Your task to perform on an android device: turn off location history Image 0: 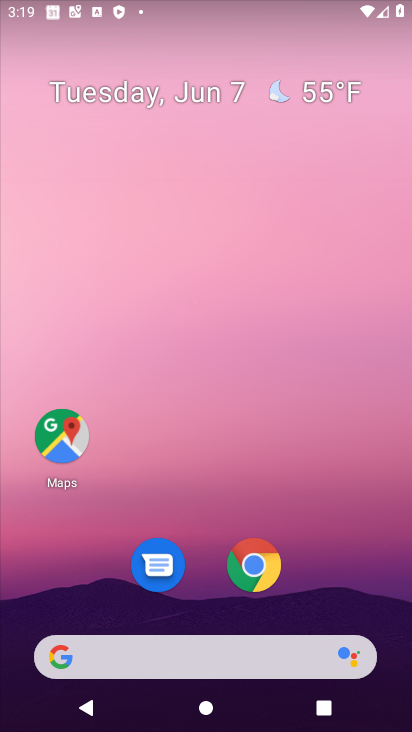
Step 0: drag from (232, 639) to (267, 2)
Your task to perform on an android device: turn off location history Image 1: 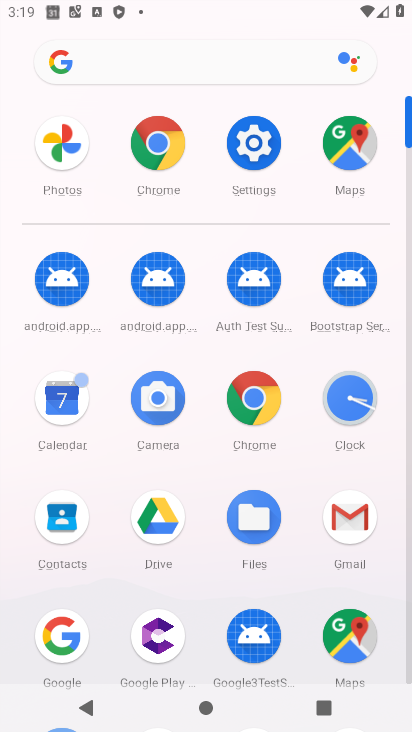
Step 1: click (267, 148)
Your task to perform on an android device: turn off location history Image 2: 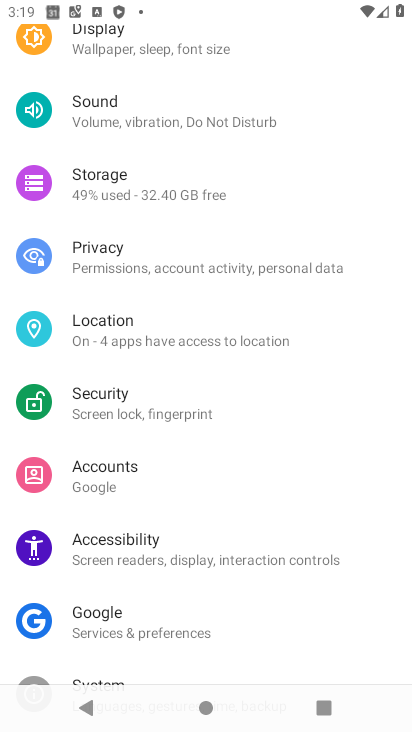
Step 2: click (147, 338)
Your task to perform on an android device: turn off location history Image 3: 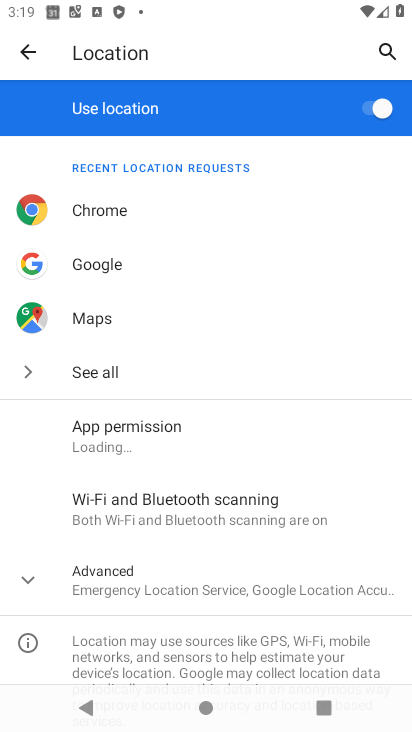
Step 3: click (189, 569)
Your task to perform on an android device: turn off location history Image 4: 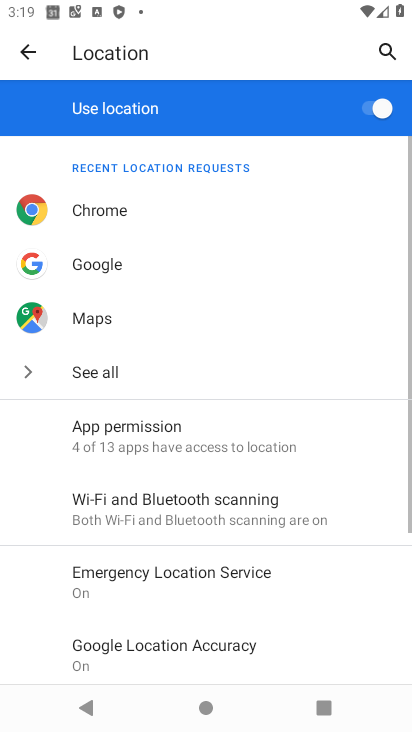
Step 4: drag from (184, 591) to (216, 225)
Your task to perform on an android device: turn off location history Image 5: 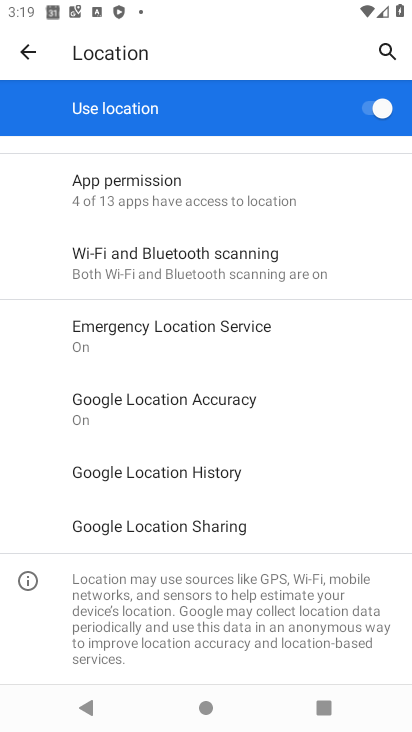
Step 5: click (202, 469)
Your task to perform on an android device: turn off location history Image 6: 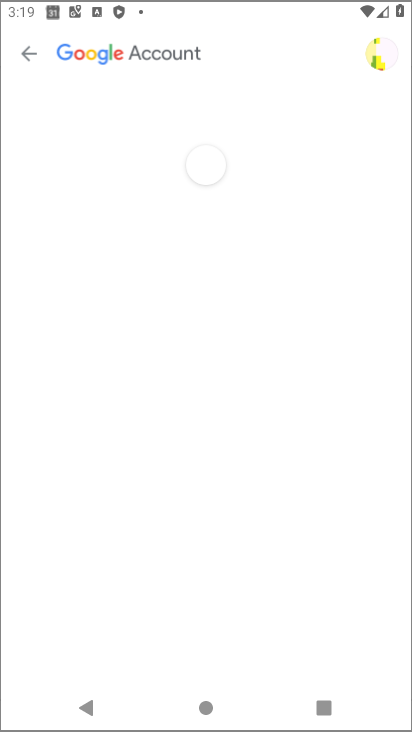
Step 6: drag from (255, 566) to (285, 72)
Your task to perform on an android device: turn off location history Image 7: 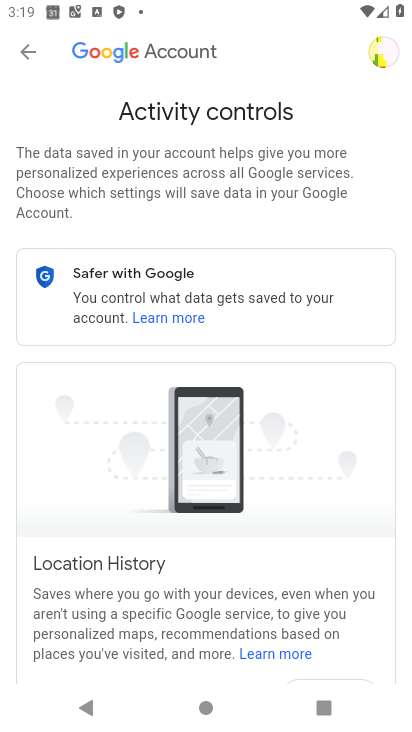
Step 7: drag from (286, 615) to (303, 35)
Your task to perform on an android device: turn off location history Image 8: 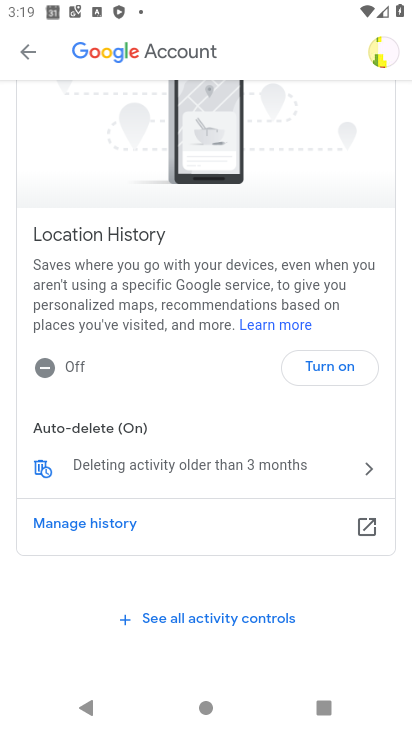
Step 8: click (331, 357)
Your task to perform on an android device: turn off location history Image 9: 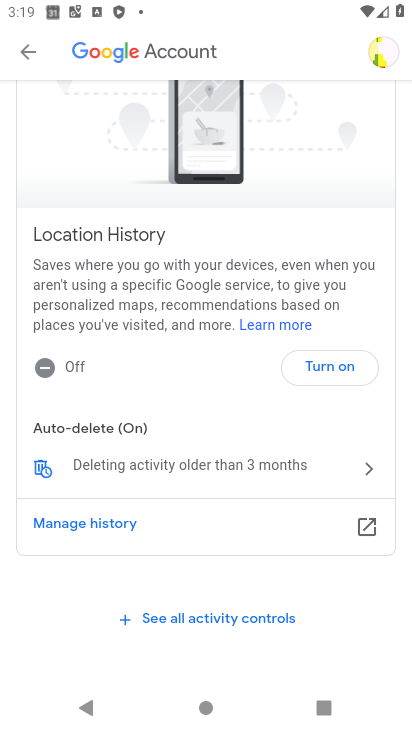
Step 9: click (330, 363)
Your task to perform on an android device: turn off location history Image 10: 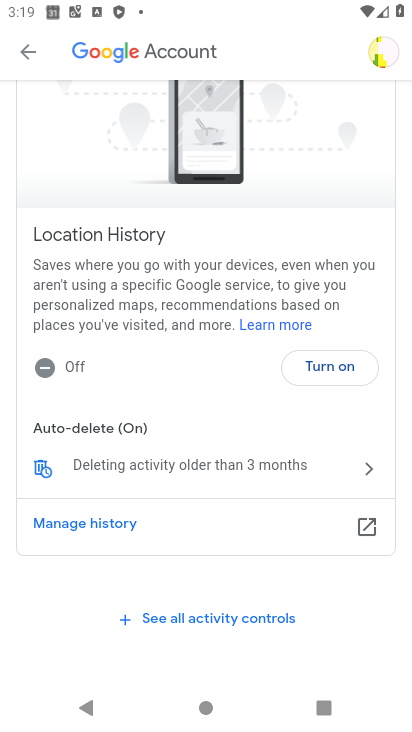
Step 10: click (330, 363)
Your task to perform on an android device: turn off location history Image 11: 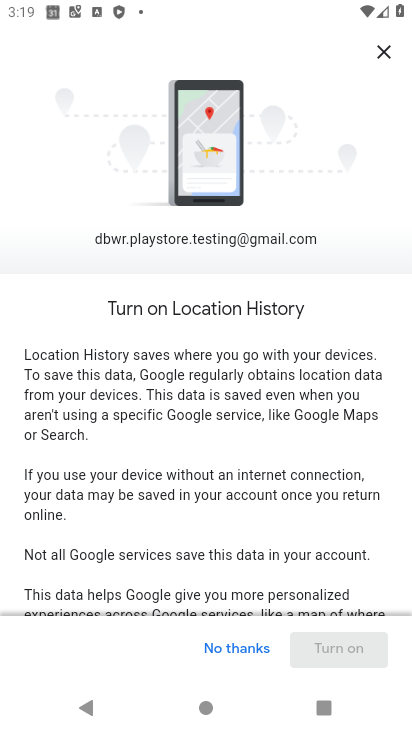
Step 11: click (243, 646)
Your task to perform on an android device: turn off location history Image 12: 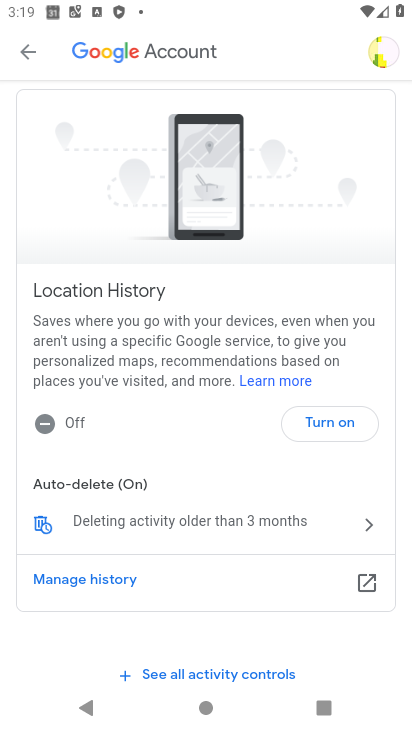
Step 12: task complete